Your task to perform on an android device: turn on airplane mode Image 0: 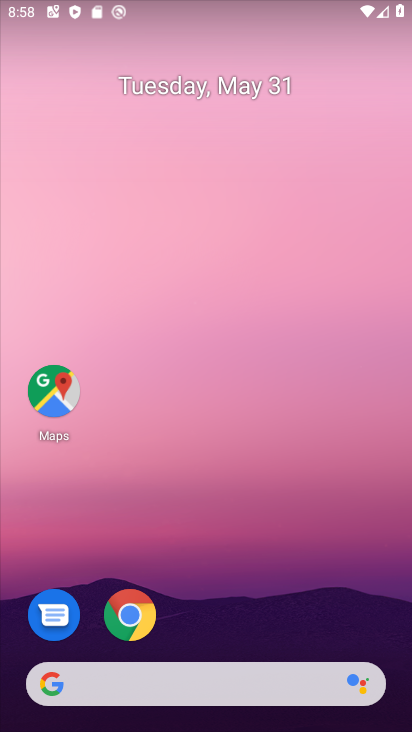
Step 0: drag from (361, 622) to (289, 126)
Your task to perform on an android device: turn on airplane mode Image 1: 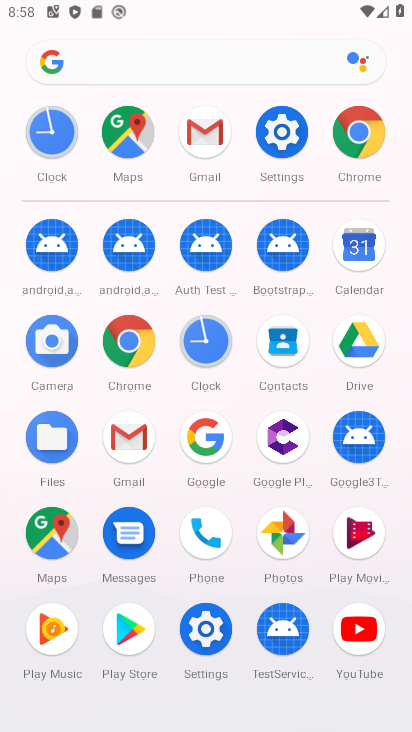
Step 1: click (206, 628)
Your task to perform on an android device: turn on airplane mode Image 2: 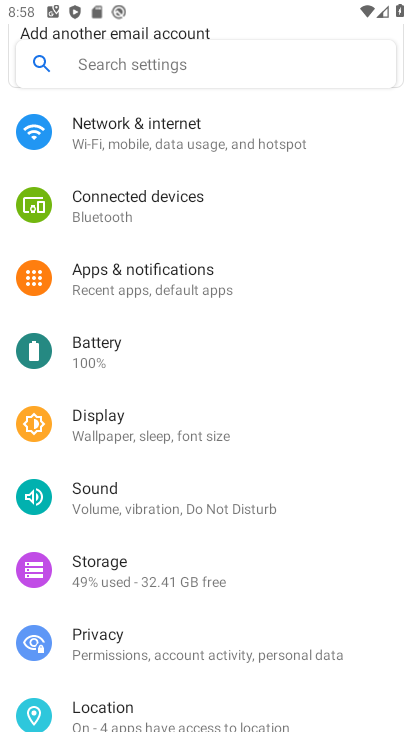
Step 2: click (117, 112)
Your task to perform on an android device: turn on airplane mode Image 3: 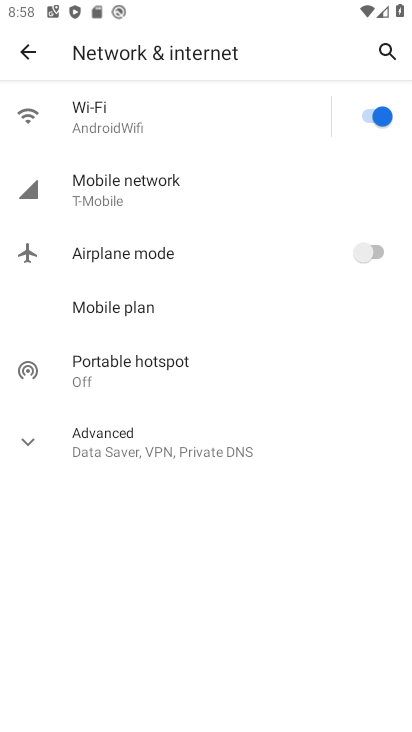
Step 3: click (374, 249)
Your task to perform on an android device: turn on airplane mode Image 4: 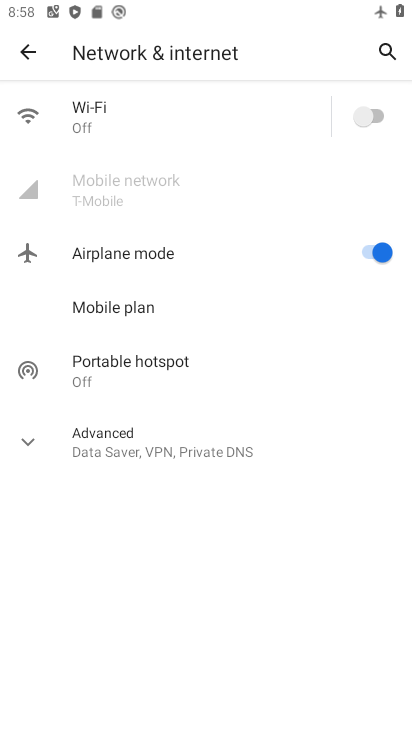
Step 4: task complete